Your task to perform on an android device: Go to Reddit.com Image 0: 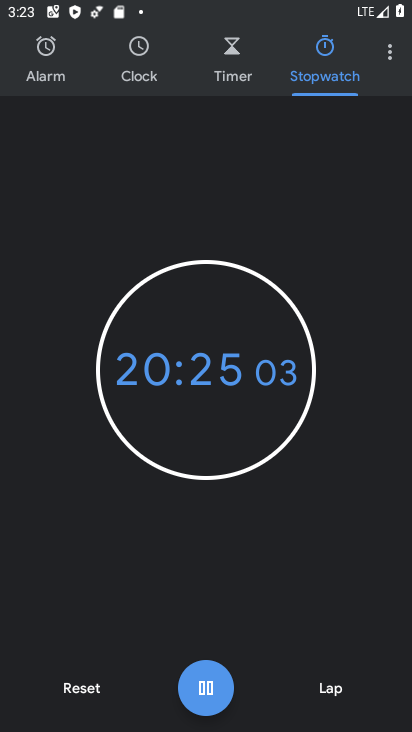
Step 0: press home button
Your task to perform on an android device: Go to Reddit.com Image 1: 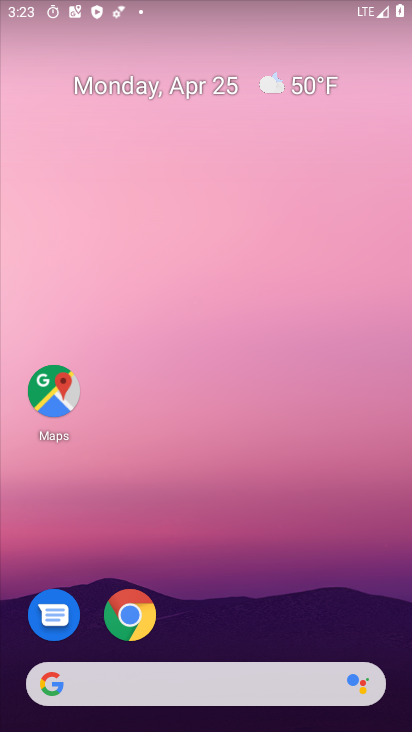
Step 1: click (123, 614)
Your task to perform on an android device: Go to Reddit.com Image 2: 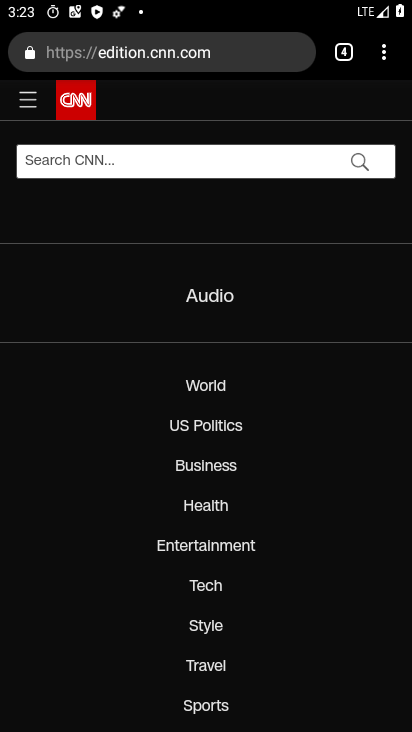
Step 2: drag from (381, 49) to (209, 163)
Your task to perform on an android device: Go to Reddit.com Image 3: 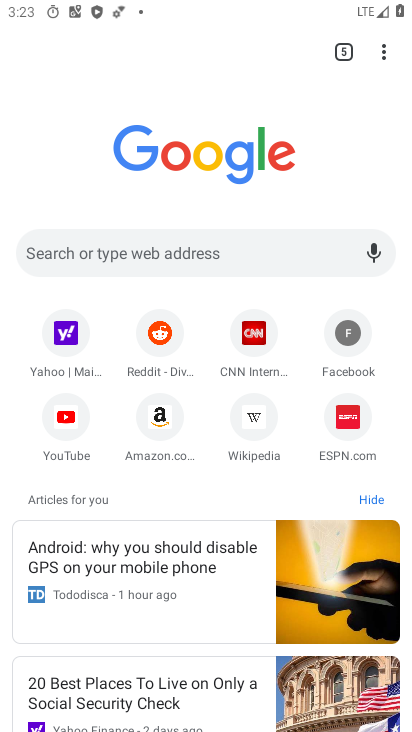
Step 3: click (134, 251)
Your task to perform on an android device: Go to Reddit.com Image 4: 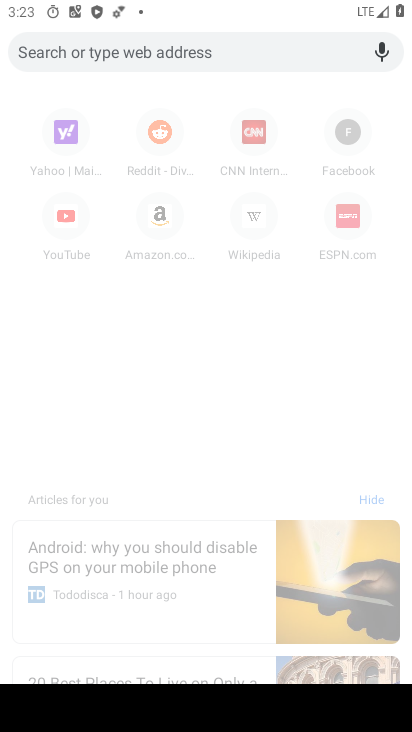
Step 4: type "Reddit.com"
Your task to perform on an android device: Go to Reddit.com Image 5: 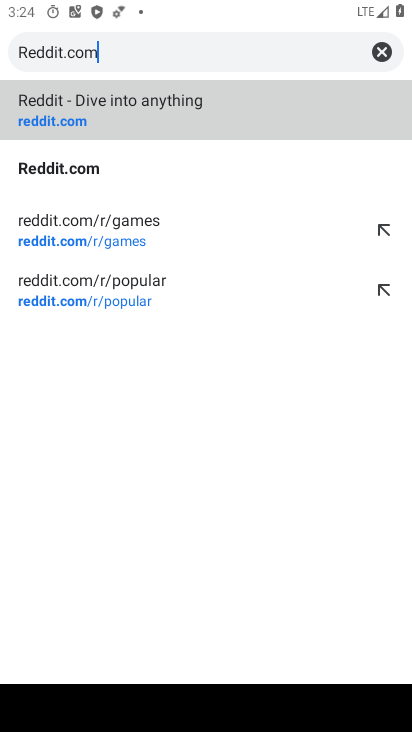
Step 5: click (42, 168)
Your task to perform on an android device: Go to Reddit.com Image 6: 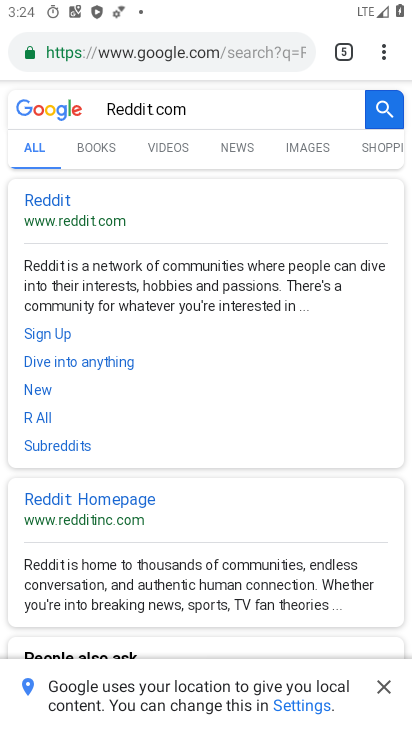
Step 6: click (52, 202)
Your task to perform on an android device: Go to Reddit.com Image 7: 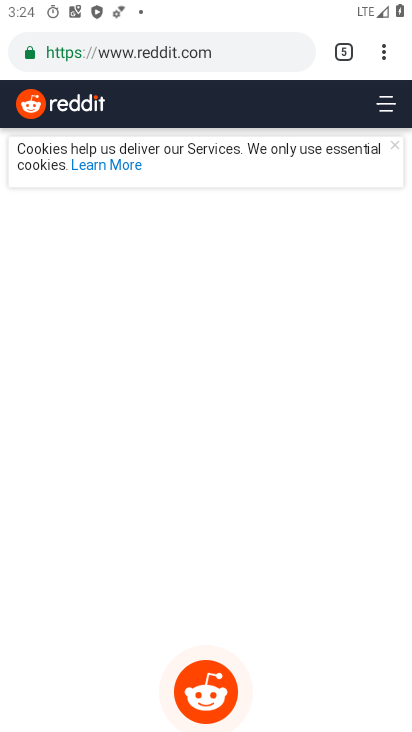
Step 7: task complete